Your task to perform on an android device: change keyboard looks Image 0: 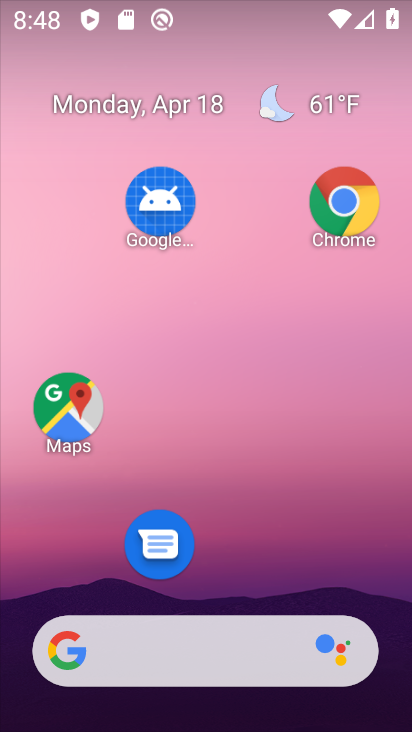
Step 0: drag from (220, 617) to (225, 15)
Your task to perform on an android device: change keyboard looks Image 1: 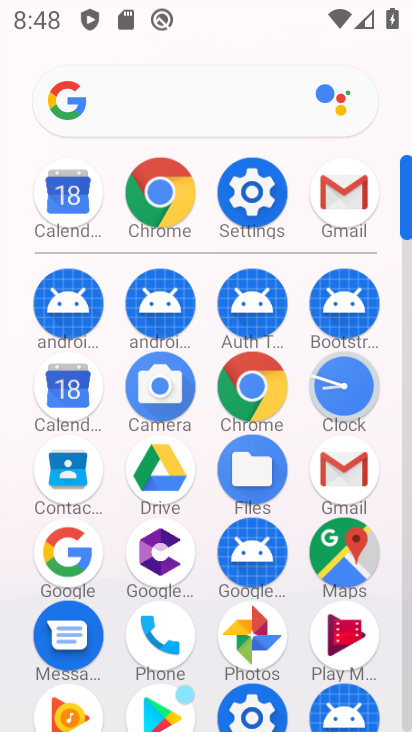
Step 1: click (255, 194)
Your task to perform on an android device: change keyboard looks Image 2: 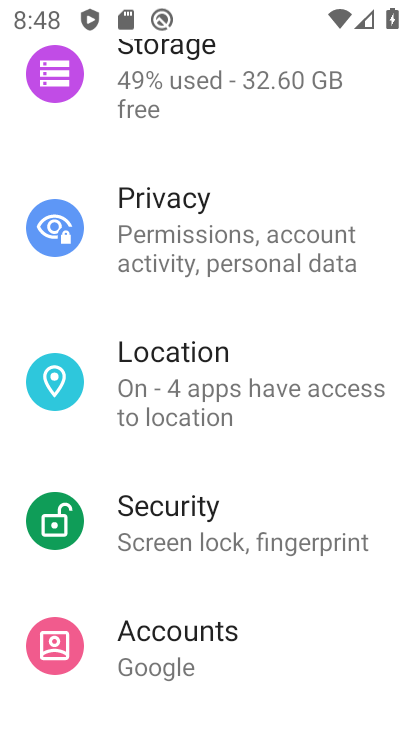
Step 2: drag from (224, 645) to (218, 206)
Your task to perform on an android device: change keyboard looks Image 3: 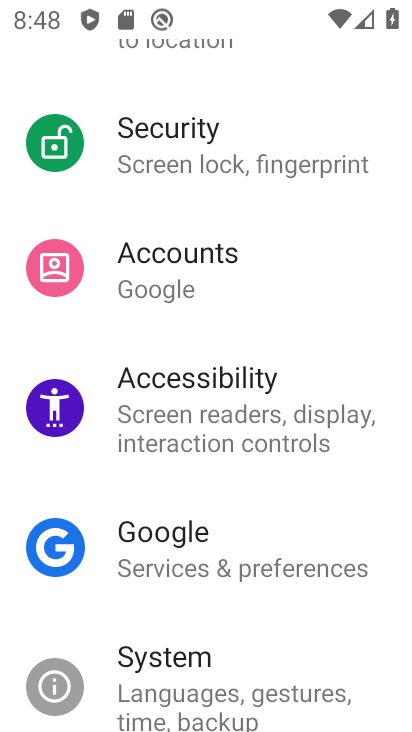
Step 3: click (209, 679)
Your task to perform on an android device: change keyboard looks Image 4: 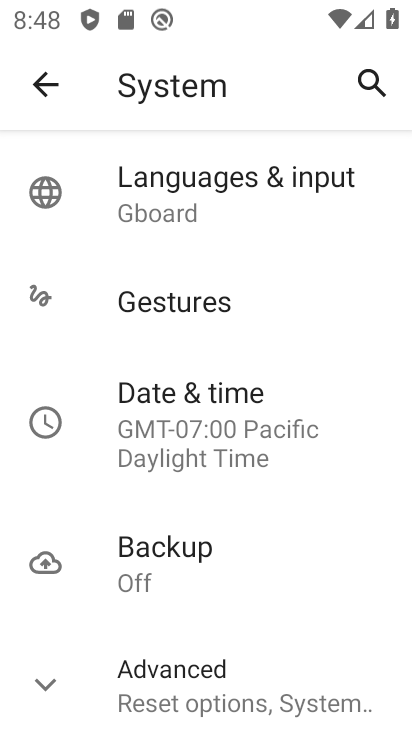
Step 4: click (251, 210)
Your task to perform on an android device: change keyboard looks Image 5: 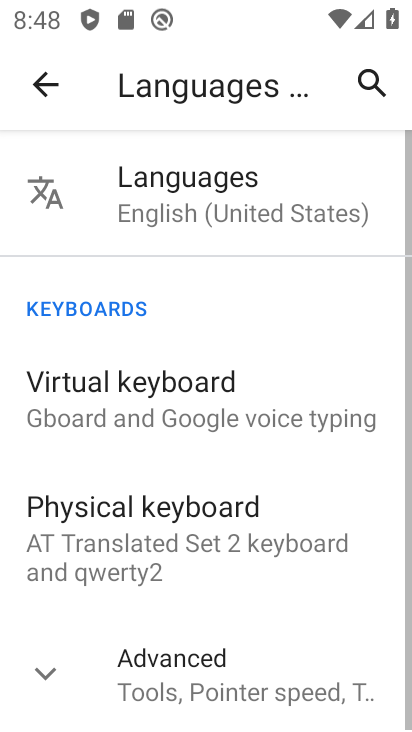
Step 5: click (115, 418)
Your task to perform on an android device: change keyboard looks Image 6: 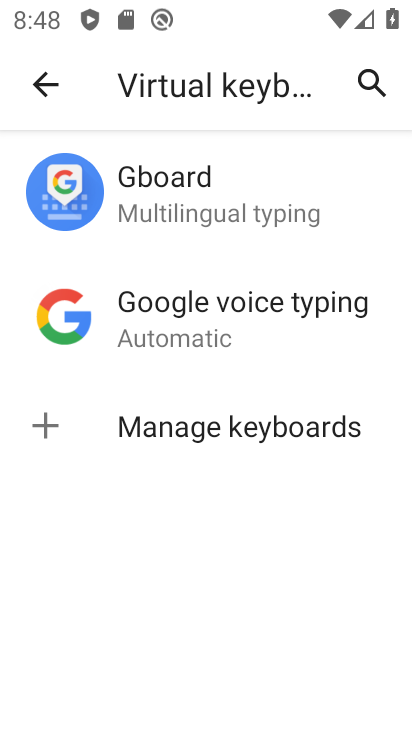
Step 6: click (127, 229)
Your task to perform on an android device: change keyboard looks Image 7: 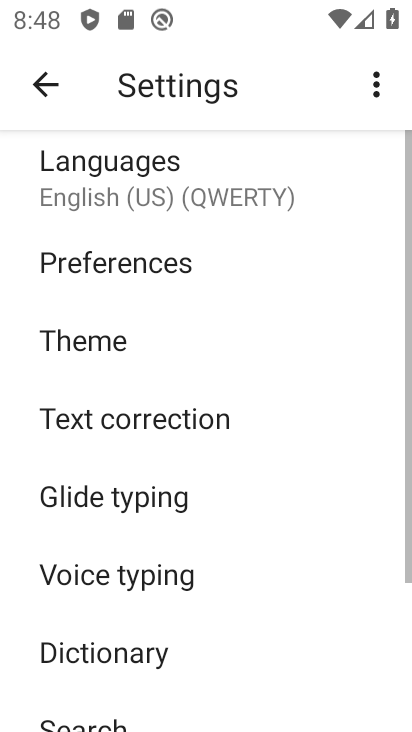
Step 7: click (92, 340)
Your task to perform on an android device: change keyboard looks Image 8: 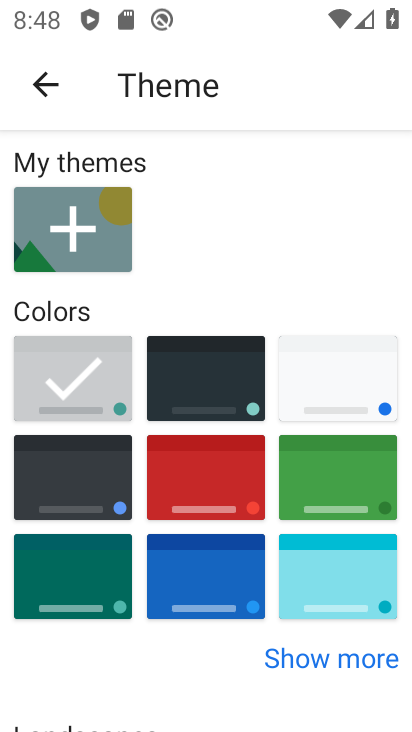
Step 8: click (190, 362)
Your task to perform on an android device: change keyboard looks Image 9: 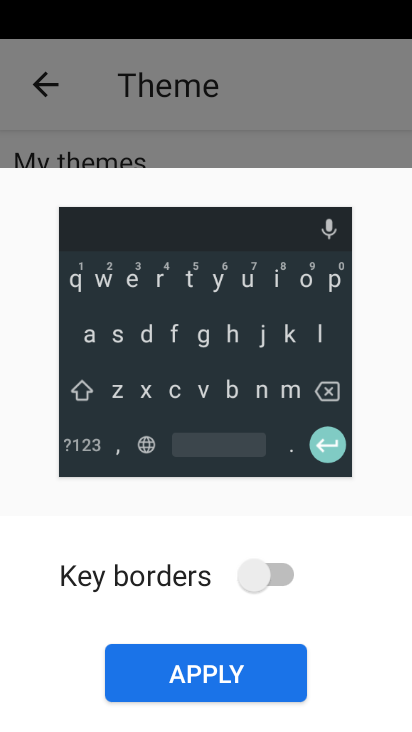
Step 9: click (201, 661)
Your task to perform on an android device: change keyboard looks Image 10: 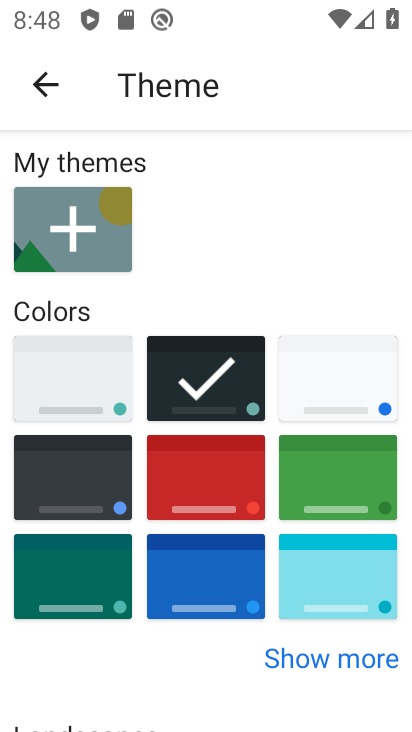
Step 10: task complete